Your task to perform on an android device: Go to eBay Image 0: 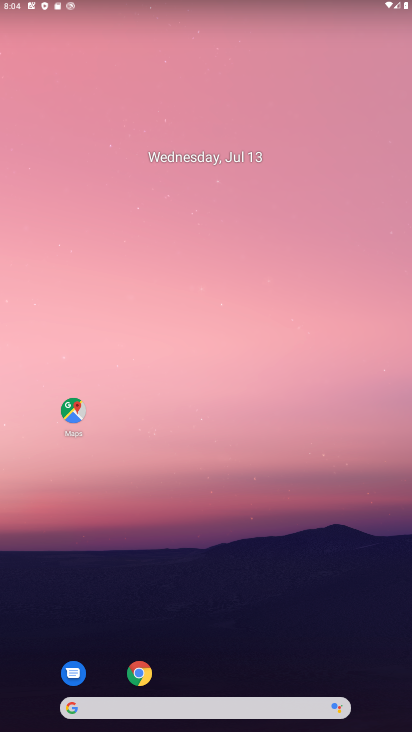
Step 0: drag from (305, 575) to (245, 50)
Your task to perform on an android device: Go to eBay Image 1: 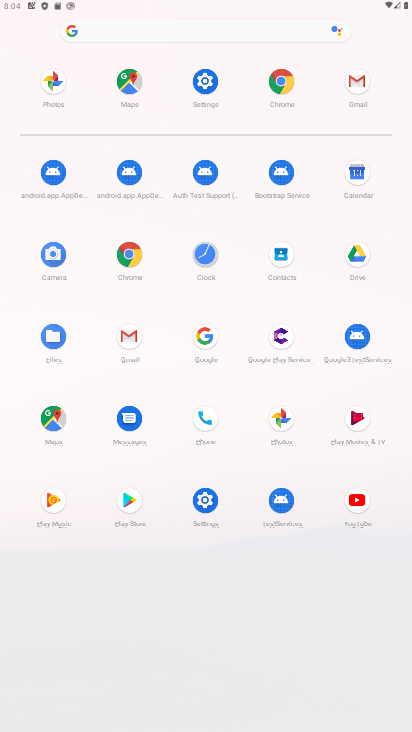
Step 1: click (280, 84)
Your task to perform on an android device: Go to eBay Image 2: 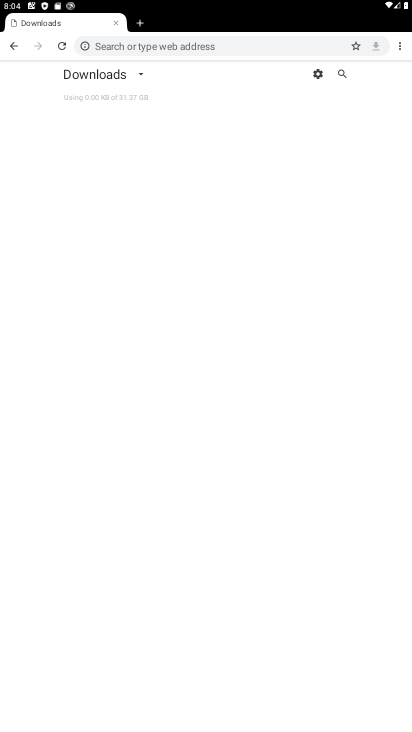
Step 2: click (228, 43)
Your task to perform on an android device: Go to eBay Image 3: 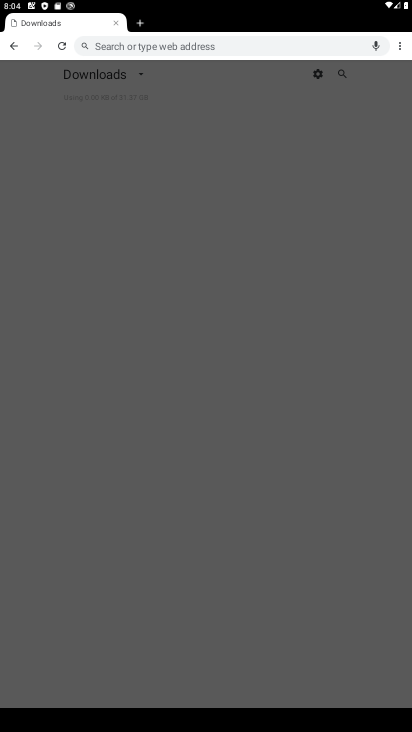
Step 3: type "ebay"
Your task to perform on an android device: Go to eBay Image 4: 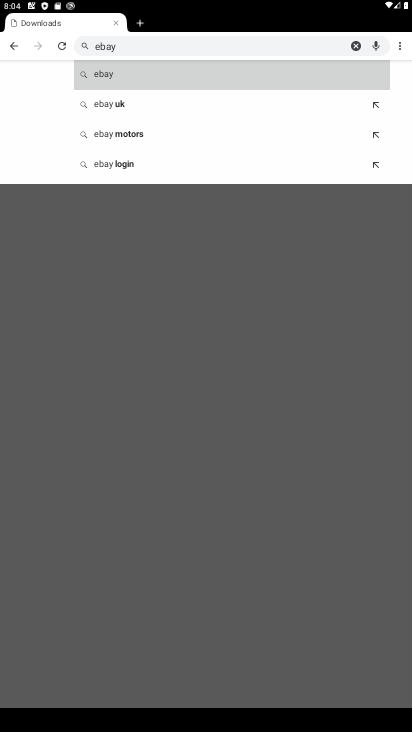
Step 4: click (115, 76)
Your task to perform on an android device: Go to eBay Image 5: 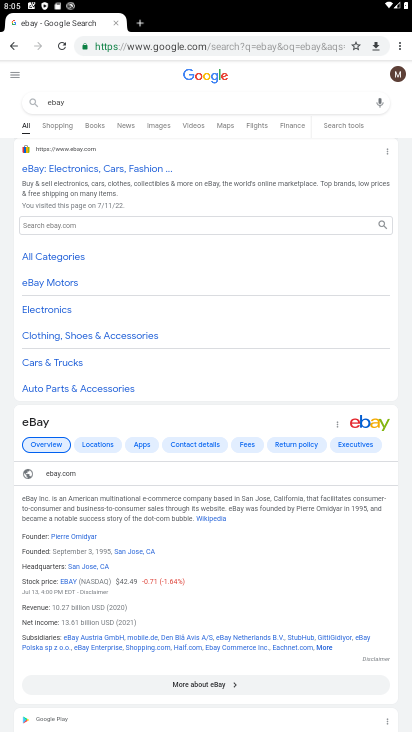
Step 5: click (82, 175)
Your task to perform on an android device: Go to eBay Image 6: 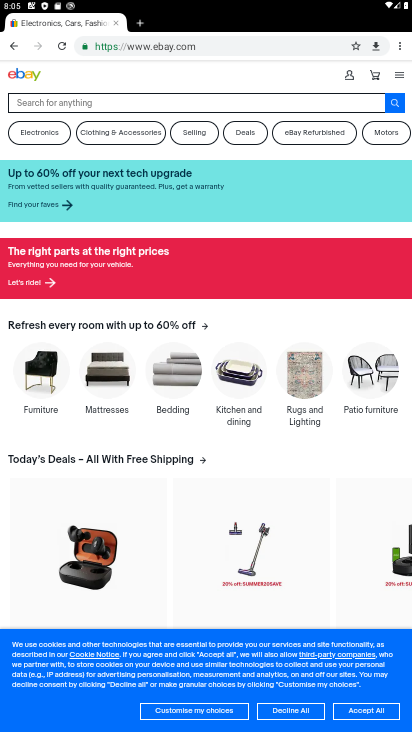
Step 6: task complete